Your task to perform on an android device: open the mobile data screen to see how much data has been used Image 0: 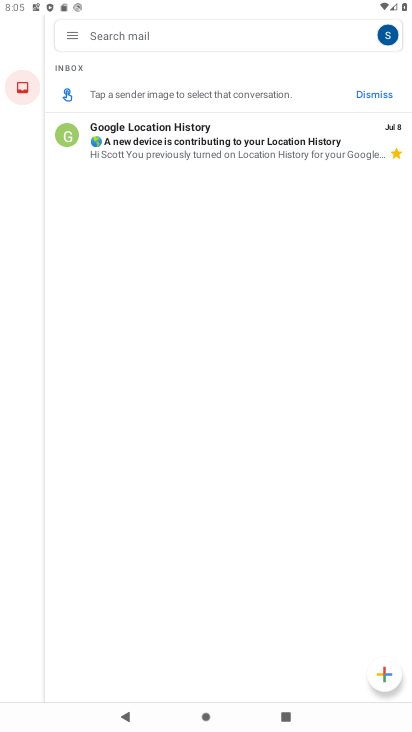
Step 0: press home button
Your task to perform on an android device: open the mobile data screen to see how much data has been used Image 1: 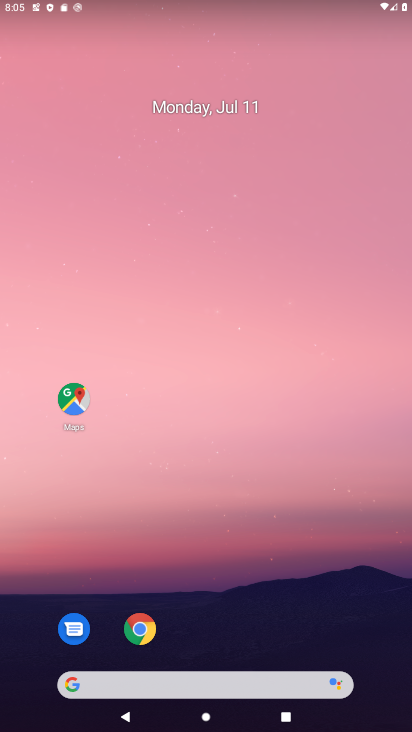
Step 1: drag from (217, 623) to (281, 110)
Your task to perform on an android device: open the mobile data screen to see how much data has been used Image 2: 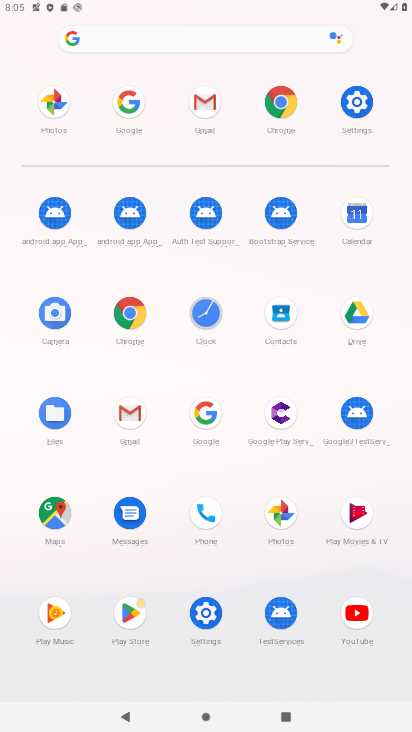
Step 2: click (366, 104)
Your task to perform on an android device: open the mobile data screen to see how much data has been used Image 3: 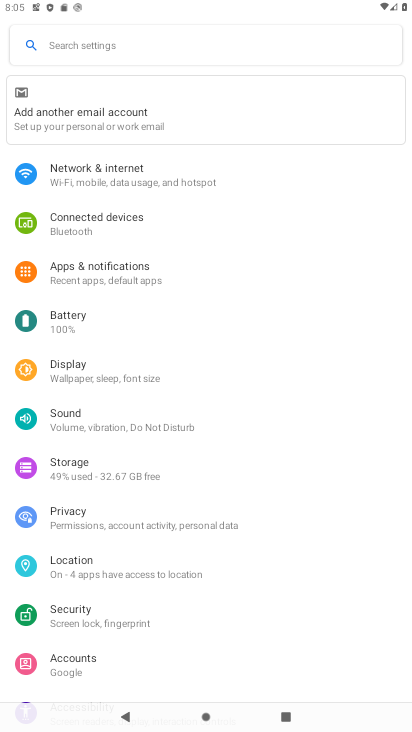
Step 3: click (102, 171)
Your task to perform on an android device: open the mobile data screen to see how much data has been used Image 4: 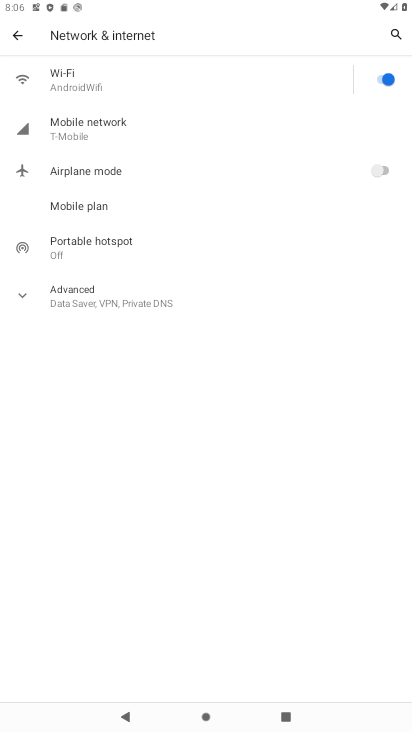
Step 4: click (118, 128)
Your task to perform on an android device: open the mobile data screen to see how much data has been used Image 5: 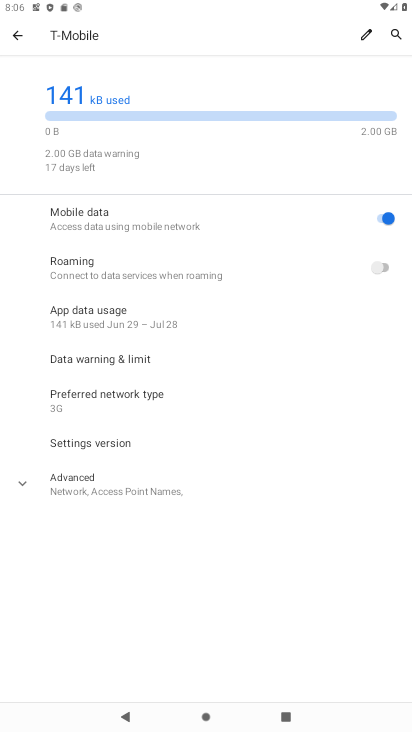
Step 5: task complete